Your task to perform on an android device: Open wifi settings Image 0: 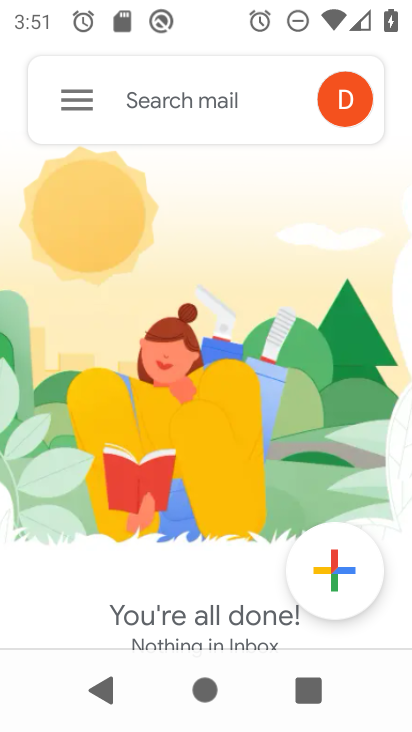
Step 0: press home button
Your task to perform on an android device: Open wifi settings Image 1: 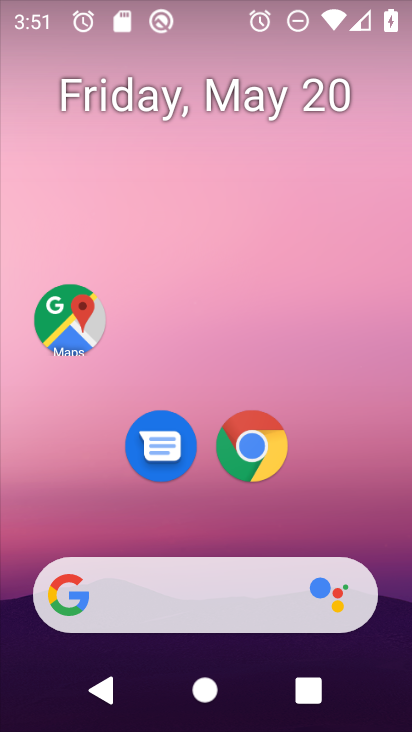
Step 1: drag from (337, 535) to (348, 12)
Your task to perform on an android device: Open wifi settings Image 2: 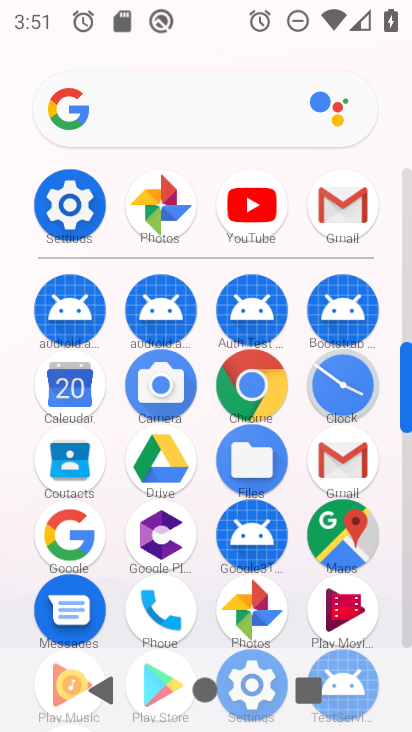
Step 2: click (67, 207)
Your task to perform on an android device: Open wifi settings Image 3: 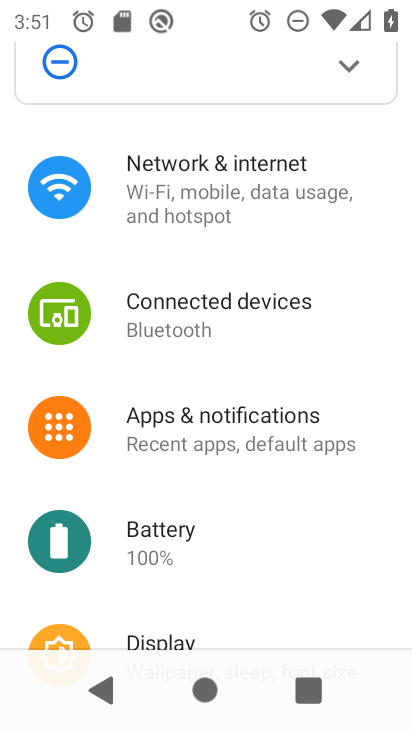
Step 3: click (219, 196)
Your task to perform on an android device: Open wifi settings Image 4: 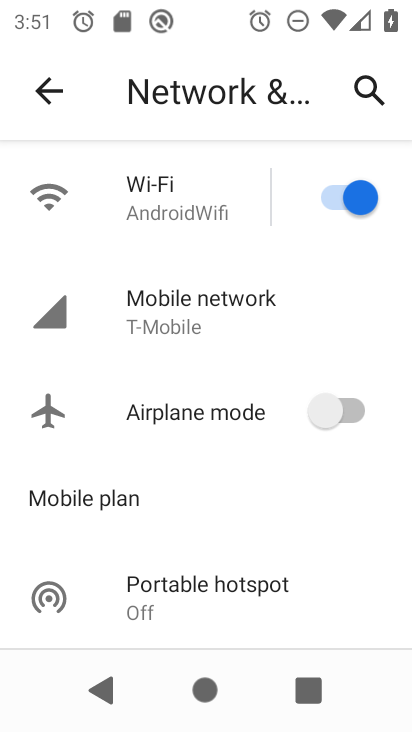
Step 4: click (133, 203)
Your task to perform on an android device: Open wifi settings Image 5: 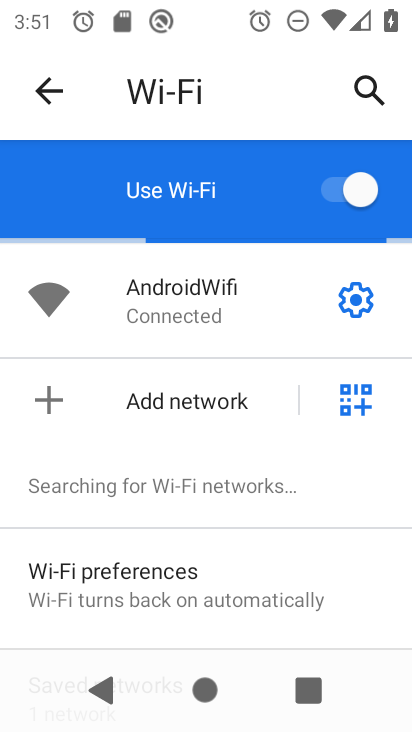
Step 5: task complete